Your task to perform on an android device: add a contact in the contacts app Image 0: 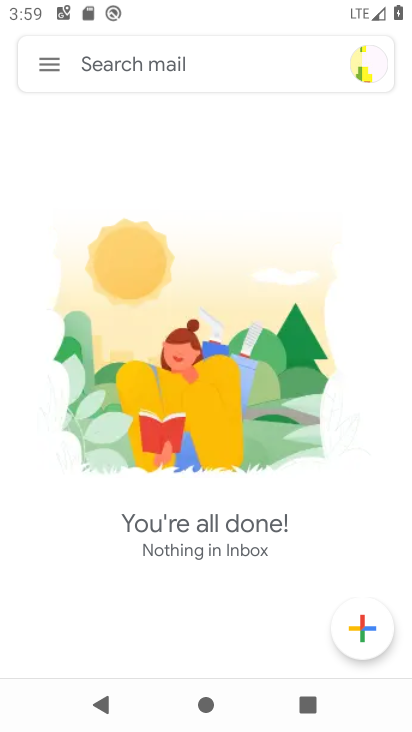
Step 0: press home button
Your task to perform on an android device: add a contact in the contacts app Image 1: 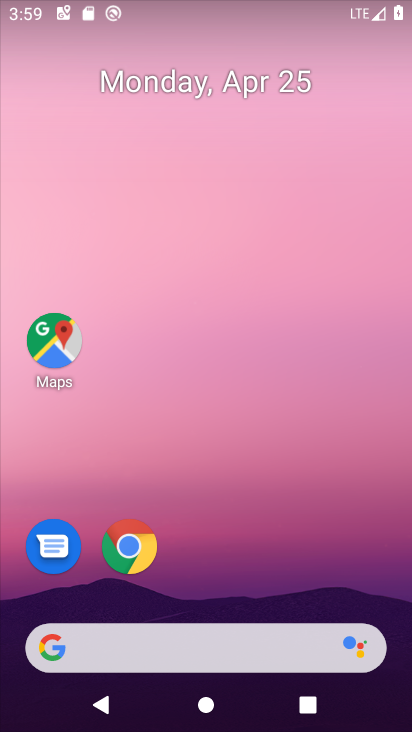
Step 1: drag from (223, 542) to (238, 0)
Your task to perform on an android device: add a contact in the contacts app Image 2: 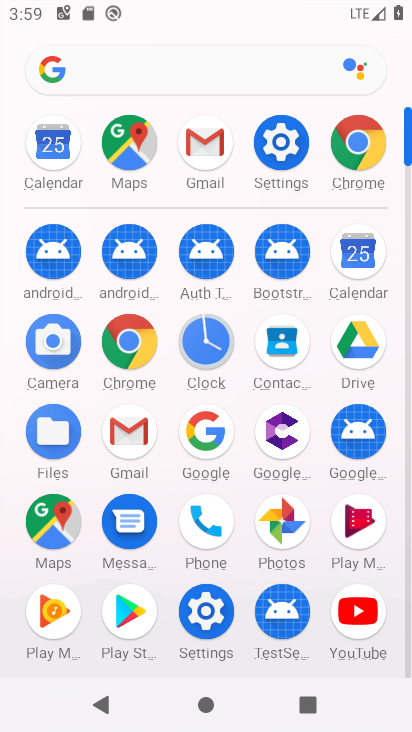
Step 2: click (282, 352)
Your task to perform on an android device: add a contact in the contacts app Image 3: 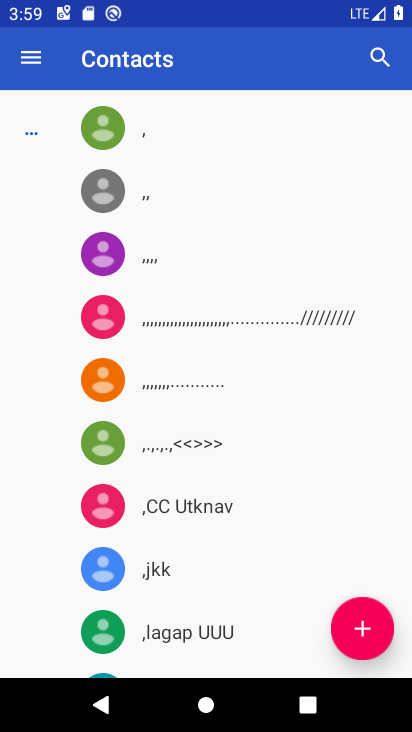
Step 3: click (353, 640)
Your task to perform on an android device: add a contact in the contacts app Image 4: 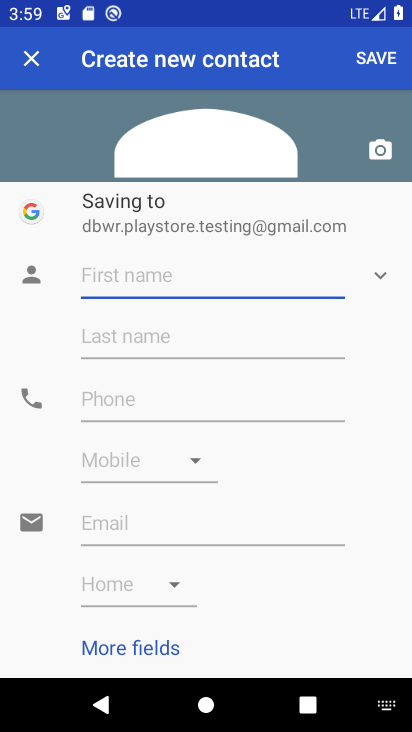
Step 4: type "mnjkj"
Your task to perform on an android device: add a contact in the contacts app Image 5: 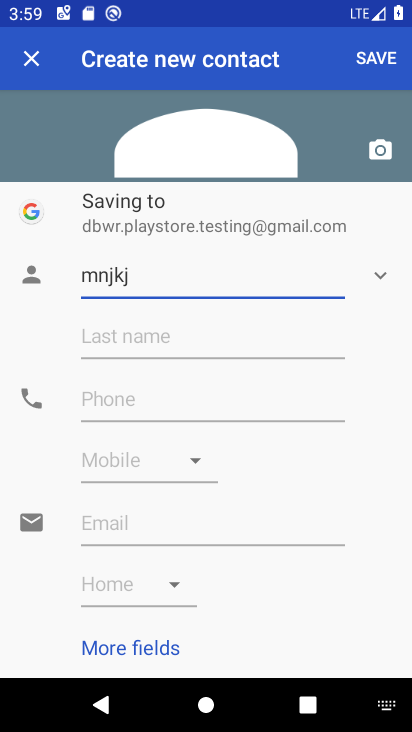
Step 5: click (113, 401)
Your task to perform on an android device: add a contact in the contacts app Image 6: 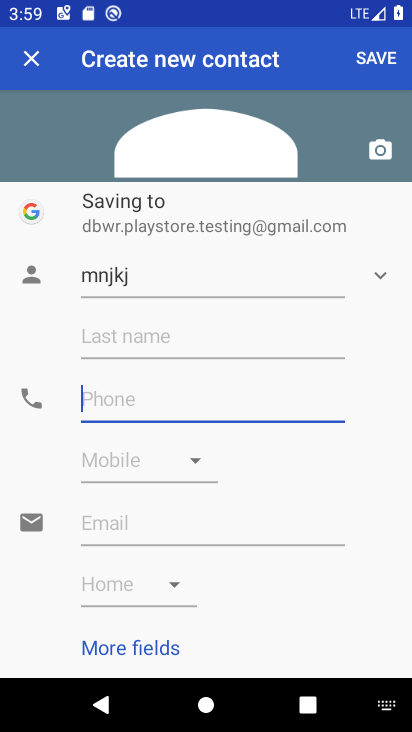
Step 6: type "9876567899"
Your task to perform on an android device: add a contact in the contacts app Image 7: 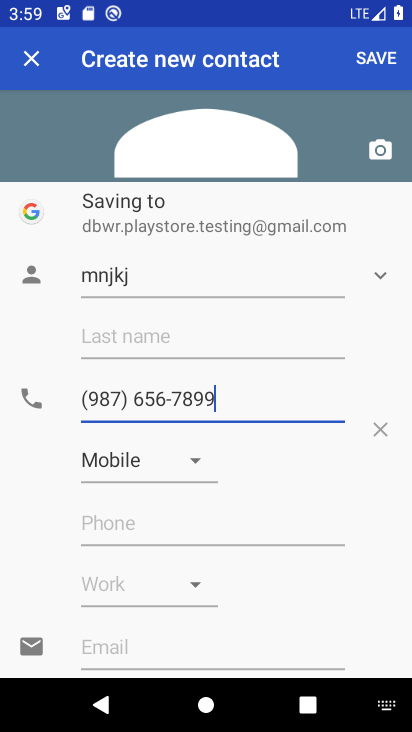
Step 7: click (377, 48)
Your task to perform on an android device: add a contact in the contacts app Image 8: 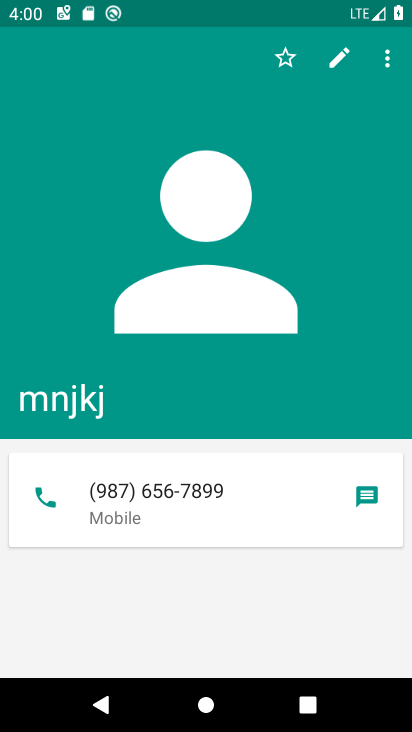
Step 8: task complete